Your task to perform on an android device: Show me popular games on the Play Store Image 0: 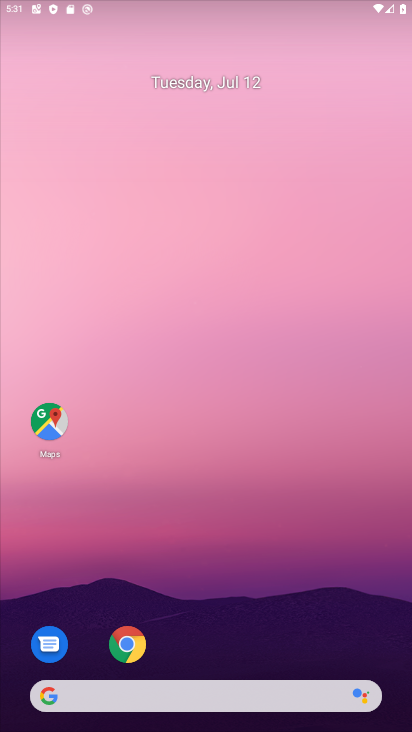
Step 0: press home button
Your task to perform on an android device: Show me popular games on the Play Store Image 1: 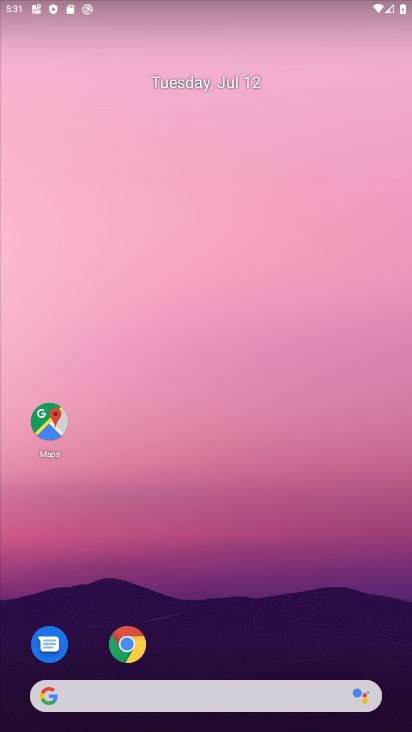
Step 1: drag from (294, 661) to (175, 37)
Your task to perform on an android device: Show me popular games on the Play Store Image 2: 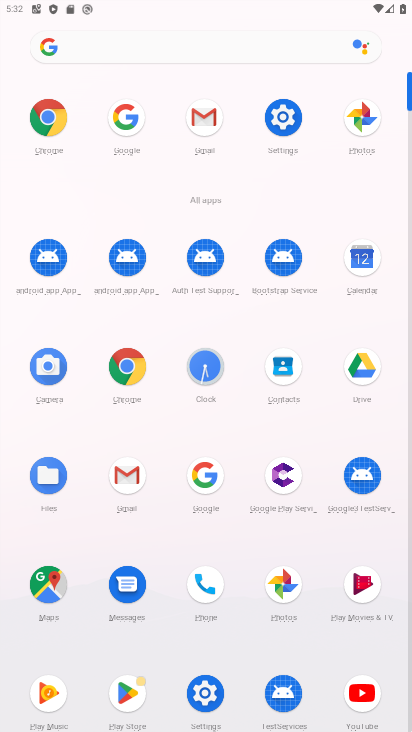
Step 2: click (129, 686)
Your task to perform on an android device: Show me popular games on the Play Store Image 3: 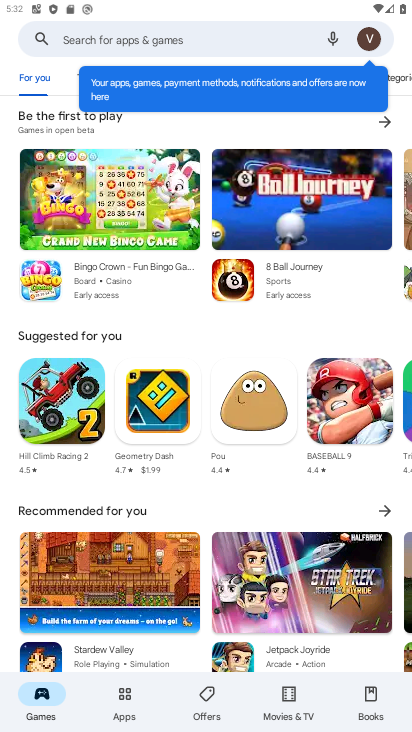
Step 3: click (221, 34)
Your task to perform on an android device: Show me popular games on the Play Store Image 4: 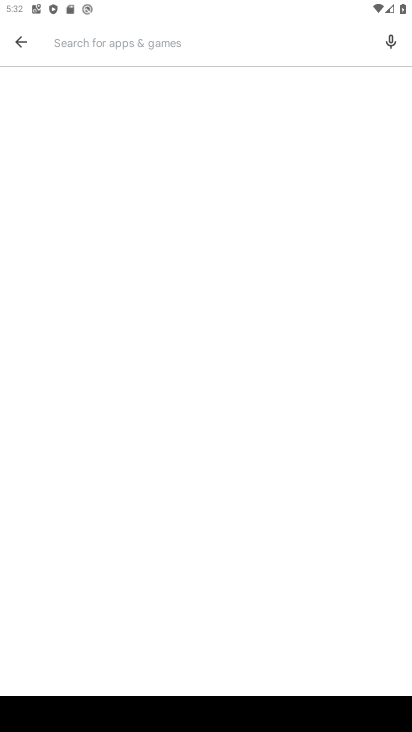
Step 4: type "popular games"
Your task to perform on an android device: Show me popular games on the Play Store Image 5: 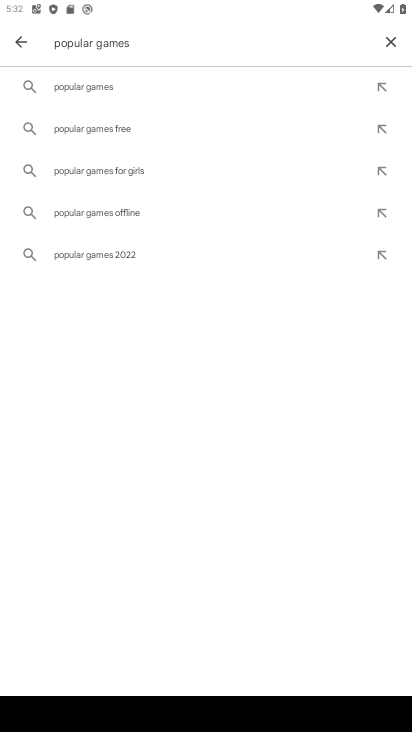
Step 5: click (107, 85)
Your task to perform on an android device: Show me popular games on the Play Store Image 6: 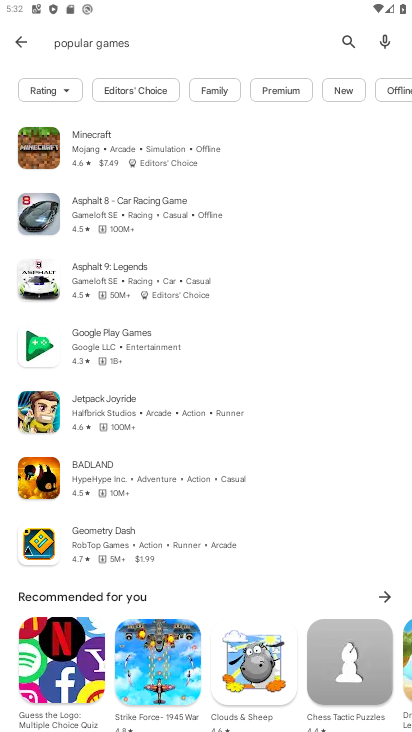
Step 6: task complete